Your task to perform on an android device: Go to Google maps Image 0: 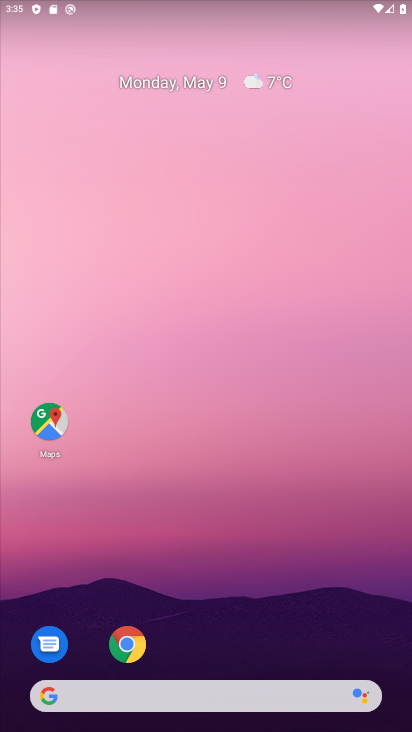
Step 0: click (112, 98)
Your task to perform on an android device: Go to Google maps Image 1: 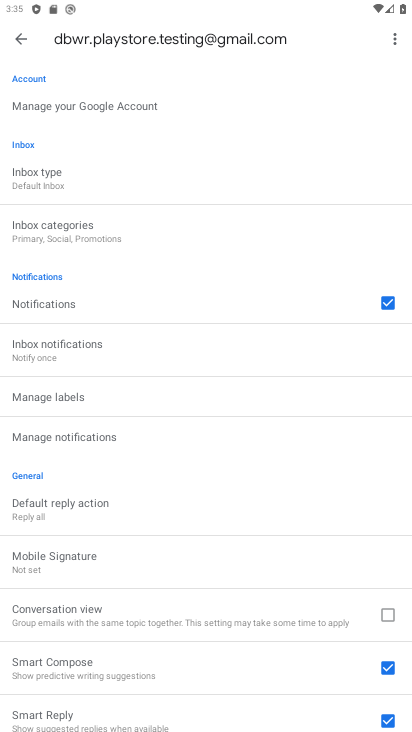
Step 1: click (11, 45)
Your task to perform on an android device: Go to Google maps Image 2: 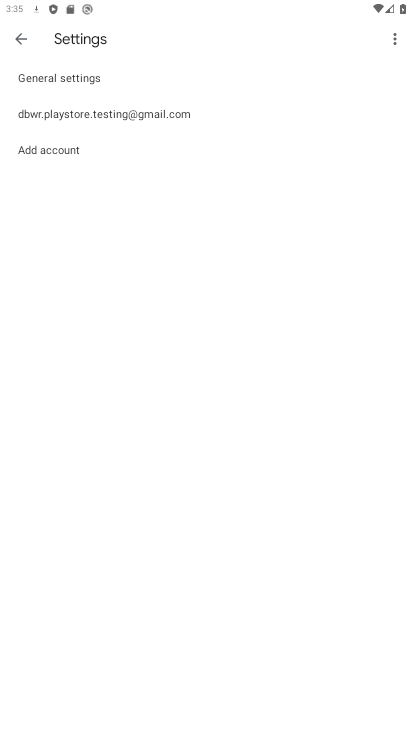
Step 2: click (19, 37)
Your task to perform on an android device: Go to Google maps Image 3: 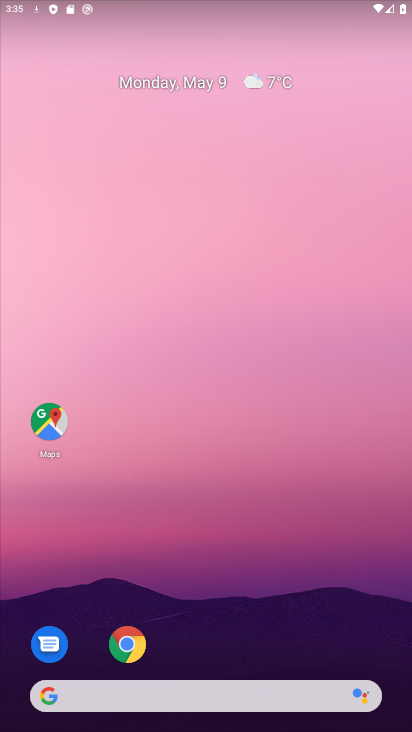
Step 3: click (51, 426)
Your task to perform on an android device: Go to Google maps Image 4: 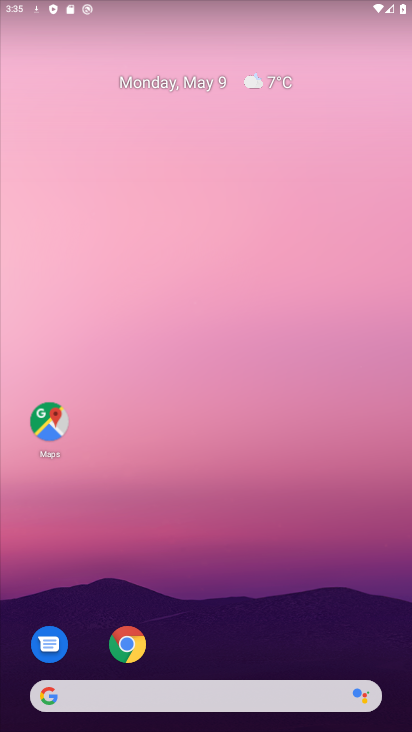
Step 4: click (51, 426)
Your task to perform on an android device: Go to Google maps Image 5: 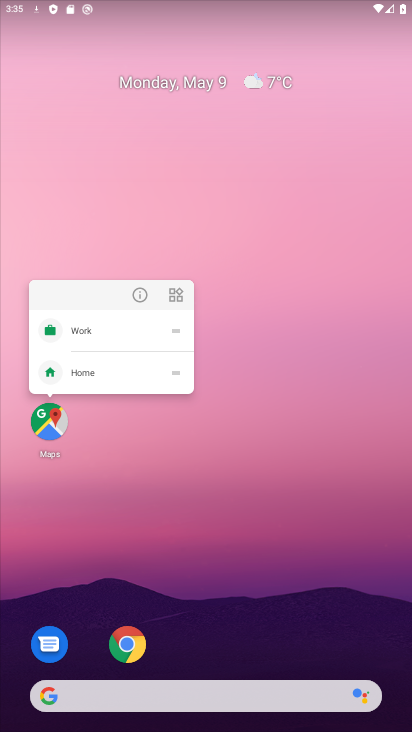
Step 5: click (51, 426)
Your task to perform on an android device: Go to Google maps Image 6: 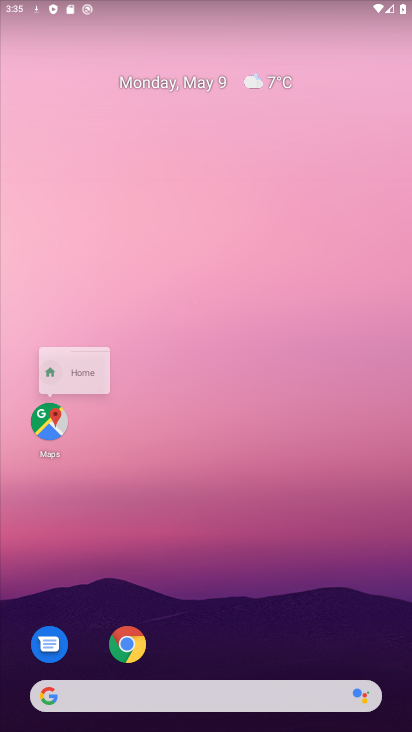
Step 6: click (51, 426)
Your task to perform on an android device: Go to Google maps Image 7: 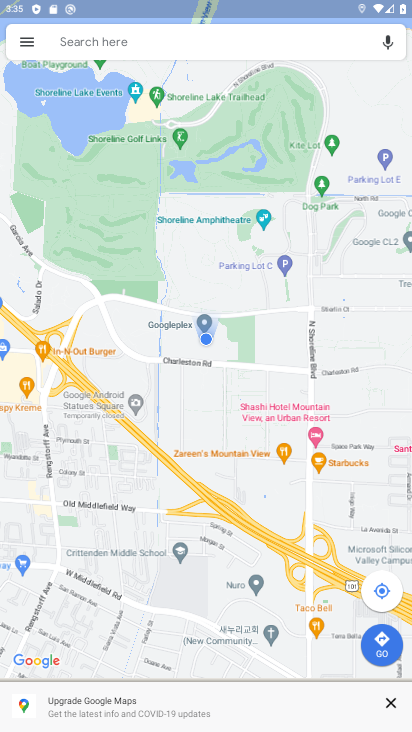
Step 7: drag from (150, 289) to (148, 248)
Your task to perform on an android device: Go to Google maps Image 8: 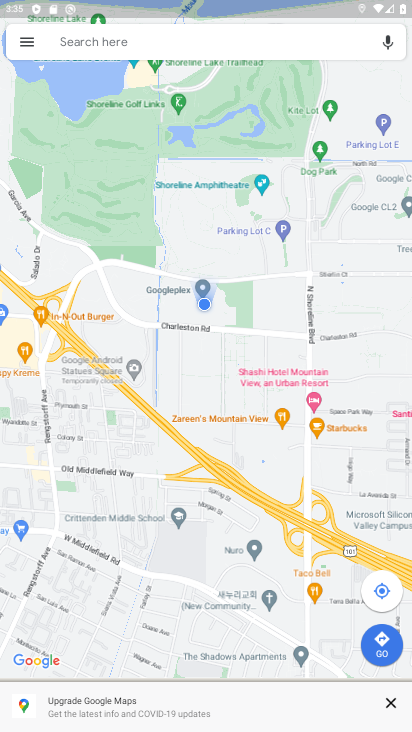
Step 8: drag from (200, 554) to (123, 212)
Your task to perform on an android device: Go to Google maps Image 9: 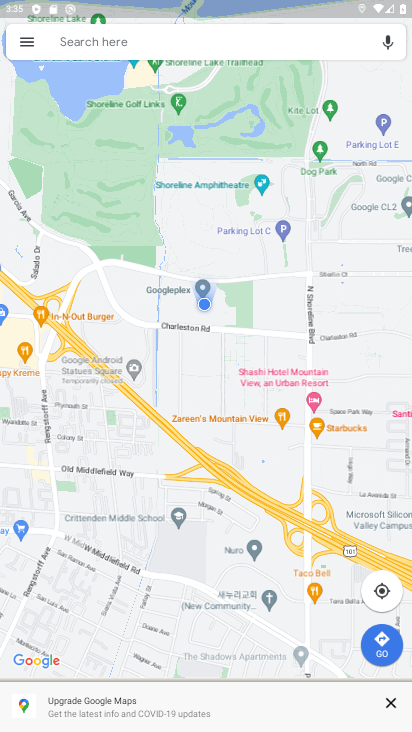
Step 9: click (192, 79)
Your task to perform on an android device: Go to Google maps Image 10: 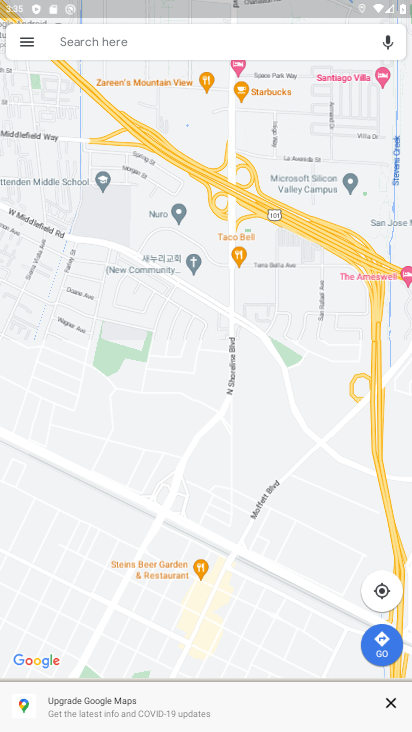
Step 10: click (226, 418)
Your task to perform on an android device: Go to Google maps Image 11: 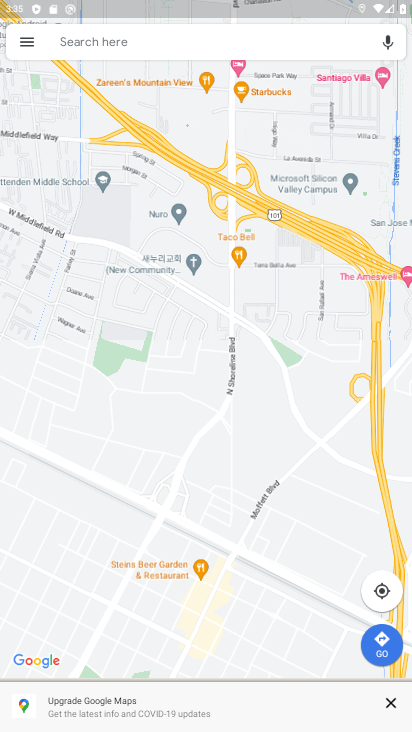
Step 11: task complete